Your task to perform on an android device: Turn off the flashlight Image 0: 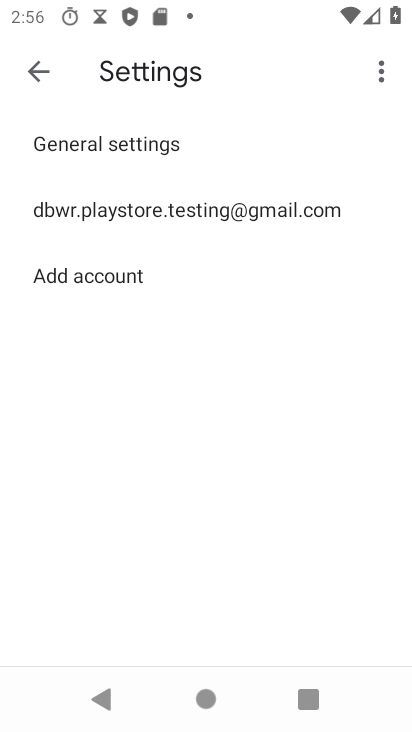
Step 0: press home button
Your task to perform on an android device: Turn off the flashlight Image 1: 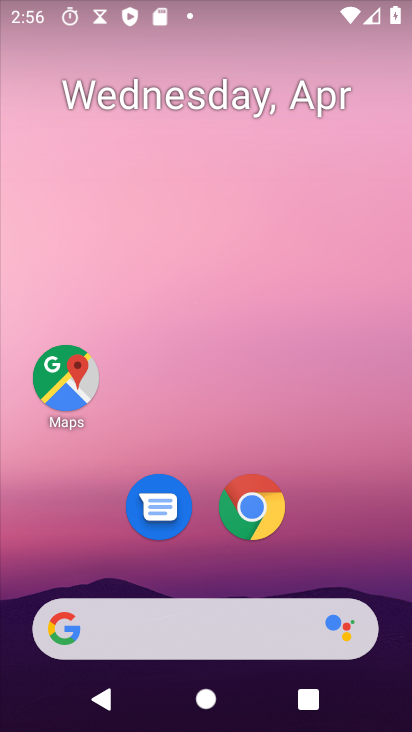
Step 1: drag from (299, 518) to (111, 52)
Your task to perform on an android device: Turn off the flashlight Image 2: 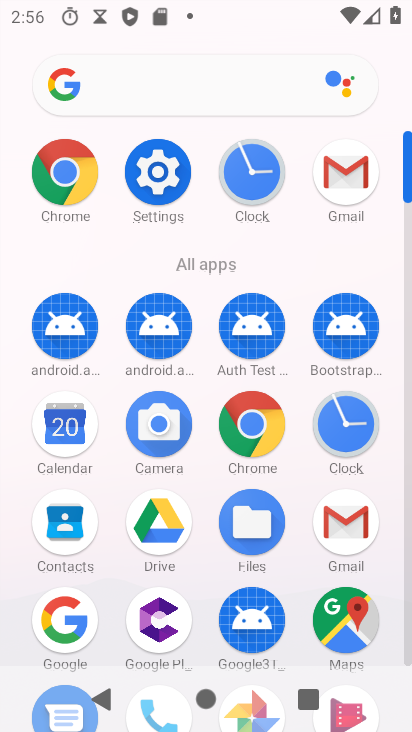
Step 2: click (161, 169)
Your task to perform on an android device: Turn off the flashlight Image 3: 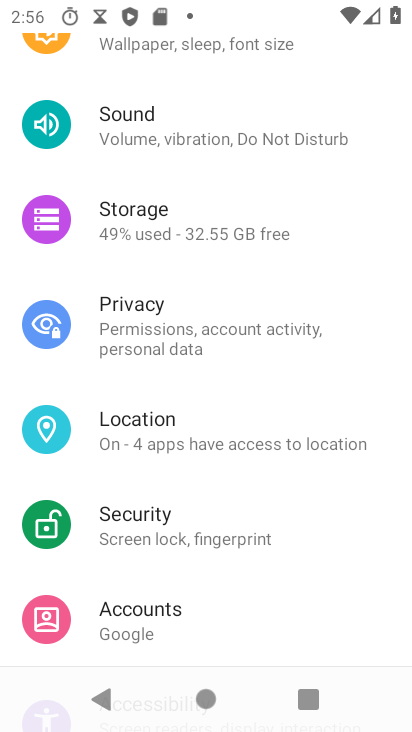
Step 3: drag from (217, 100) to (200, 383)
Your task to perform on an android device: Turn off the flashlight Image 4: 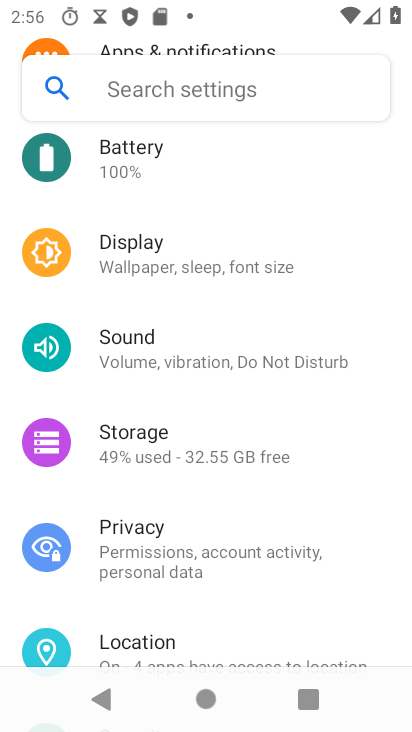
Step 4: click (213, 102)
Your task to perform on an android device: Turn off the flashlight Image 5: 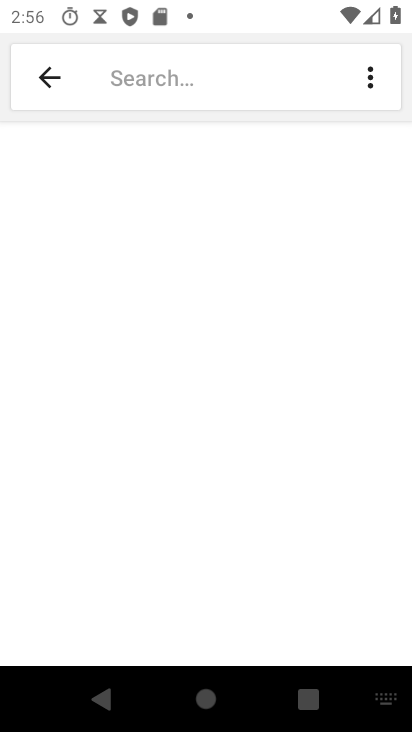
Step 5: type "flashlight"
Your task to perform on an android device: Turn off the flashlight Image 6: 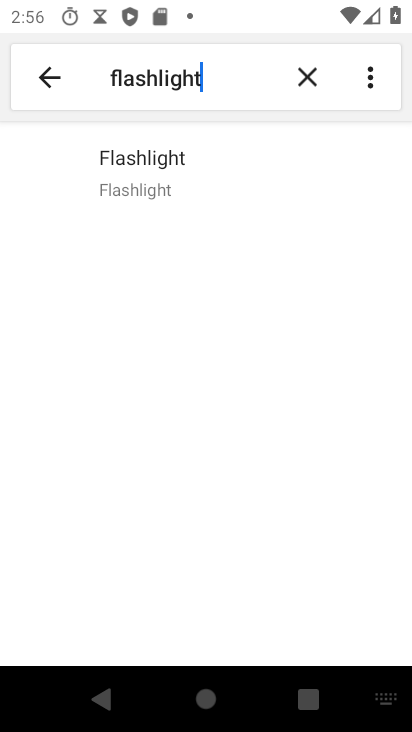
Step 6: click (147, 181)
Your task to perform on an android device: Turn off the flashlight Image 7: 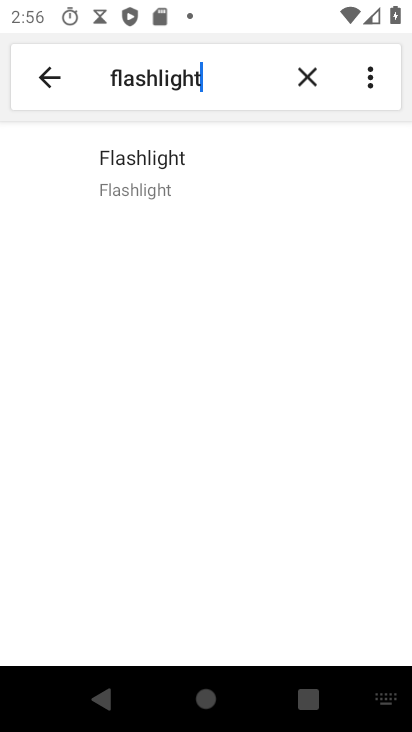
Step 7: click (147, 181)
Your task to perform on an android device: Turn off the flashlight Image 8: 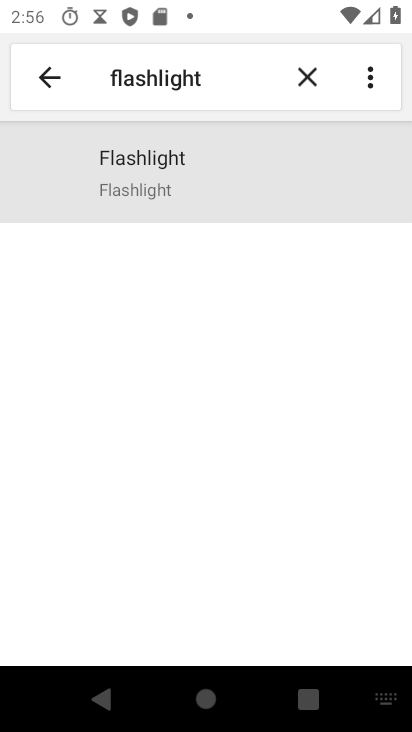
Step 8: click (147, 181)
Your task to perform on an android device: Turn off the flashlight Image 9: 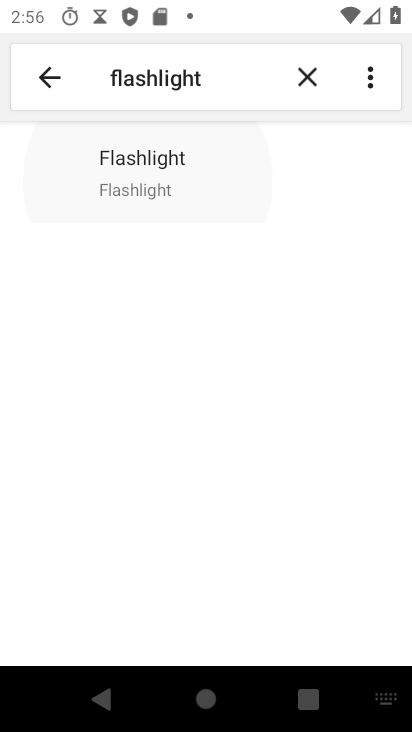
Step 9: click (147, 181)
Your task to perform on an android device: Turn off the flashlight Image 10: 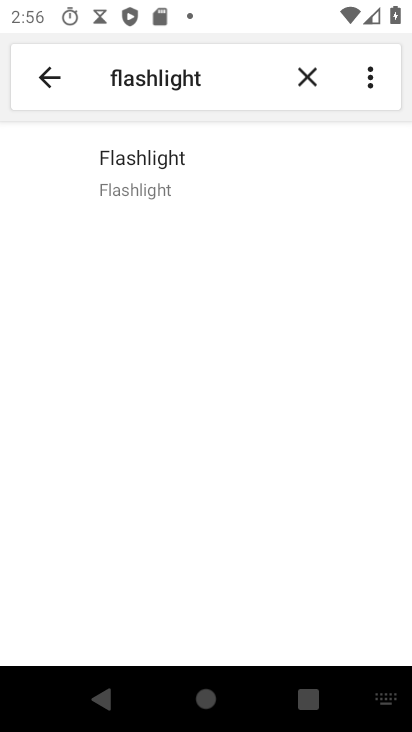
Step 10: task complete